Your task to perform on an android device: change the clock display to analog Image 0: 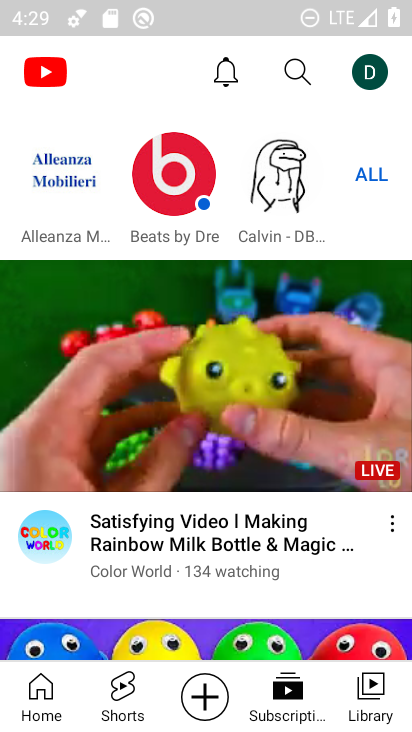
Step 0: press home button
Your task to perform on an android device: change the clock display to analog Image 1: 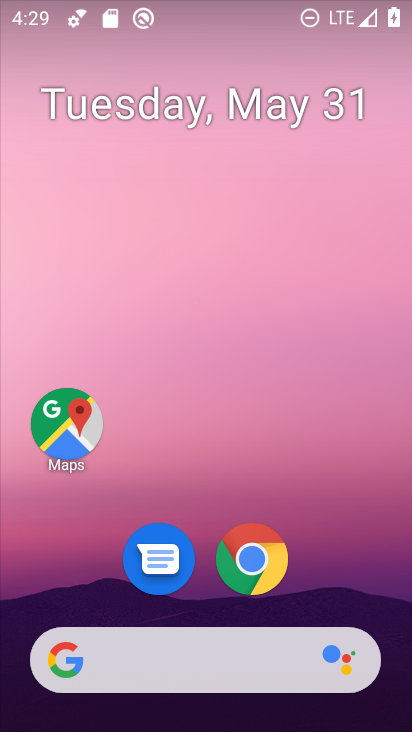
Step 1: drag from (245, 713) to (264, 96)
Your task to perform on an android device: change the clock display to analog Image 2: 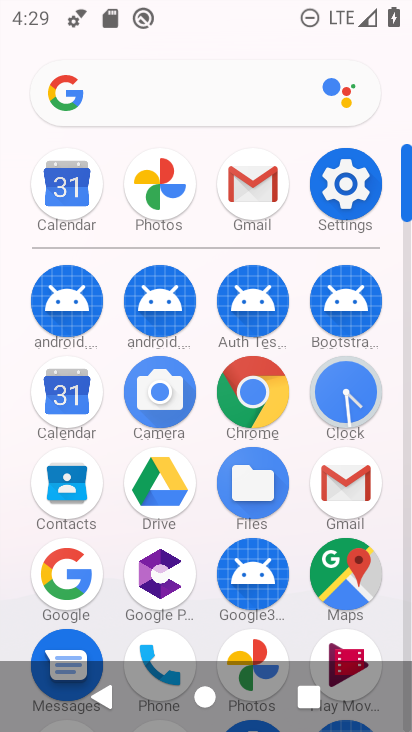
Step 2: click (345, 391)
Your task to perform on an android device: change the clock display to analog Image 3: 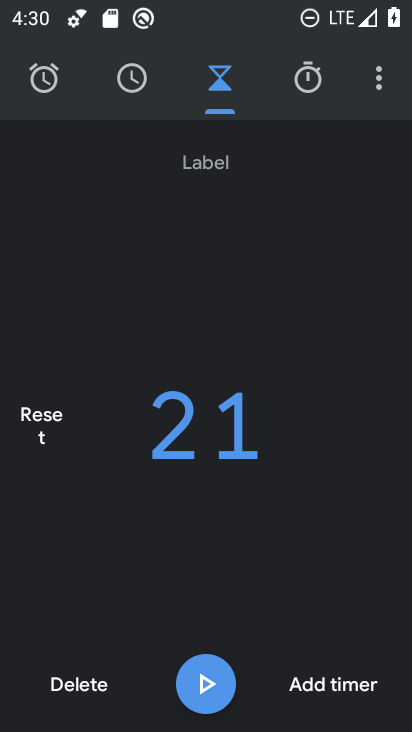
Step 3: click (382, 86)
Your task to perform on an android device: change the clock display to analog Image 4: 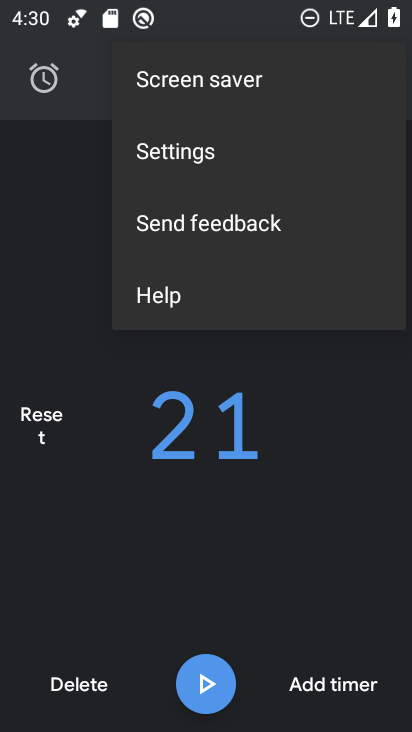
Step 4: click (197, 150)
Your task to perform on an android device: change the clock display to analog Image 5: 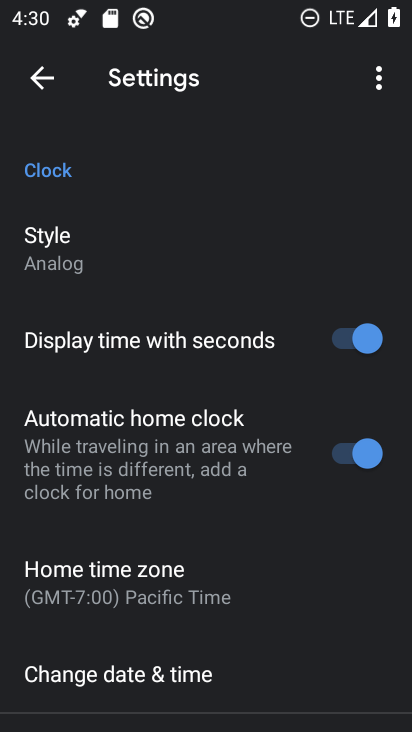
Step 5: task complete